Your task to perform on an android device: Do I have any events this weekend? Image 0: 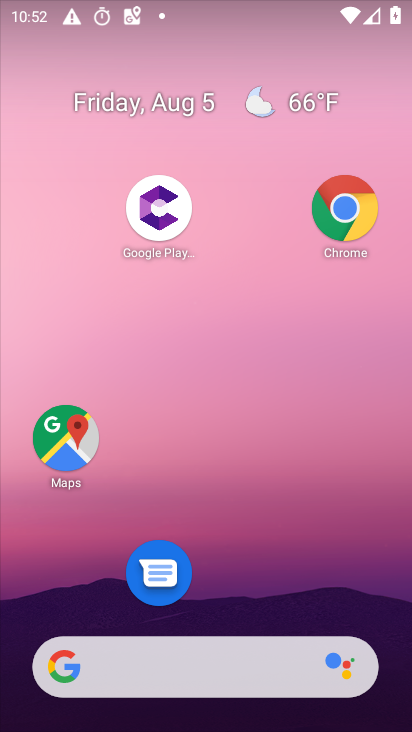
Step 0: drag from (235, 605) to (263, 8)
Your task to perform on an android device: Do I have any events this weekend? Image 1: 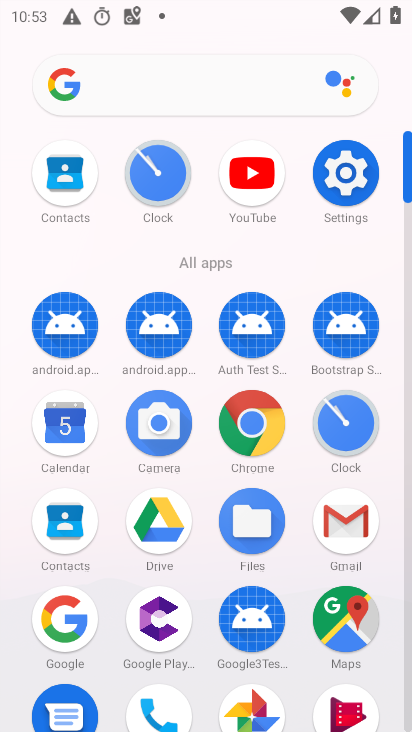
Step 1: click (62, 418)
Your task to perform on an android device: Do I have any events this weekend? Image 2: 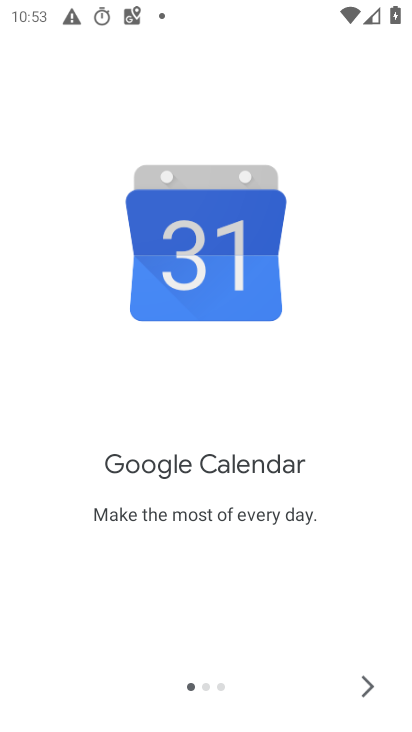
Step 2: click (368, 680)
Your task to perform on an android device: Do I have any events this weekend? Image 3: 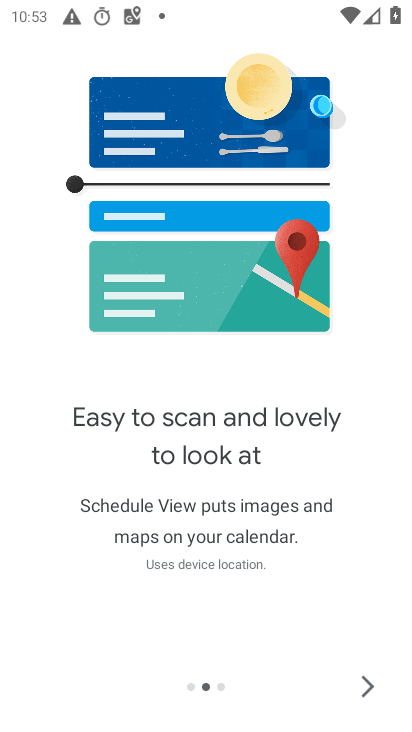
Step 3: click (352, 681)
Your task to perform on an android device: Do I have any events this weekend? Image 4: 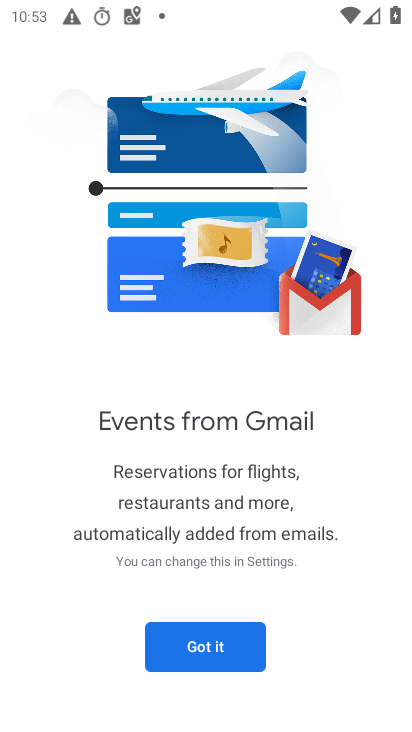
Step 4: click (209, 641)
Your task to perform on an android device: Do I have any events this weekend? Image 5: 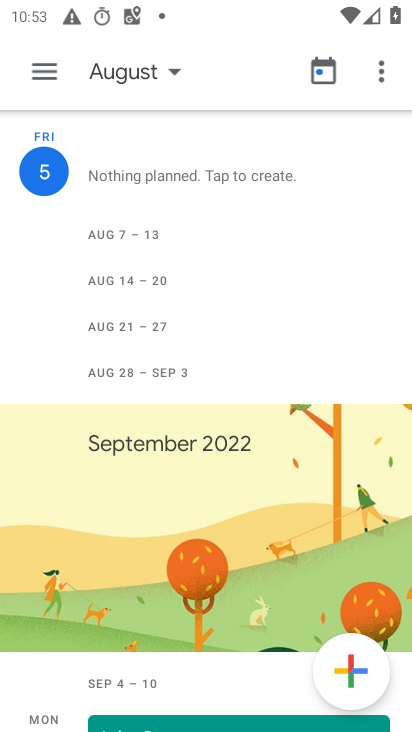
Step 5: click (40, 79)
Your task to perform on an android device: Do I have any events this weekend? Image 6: 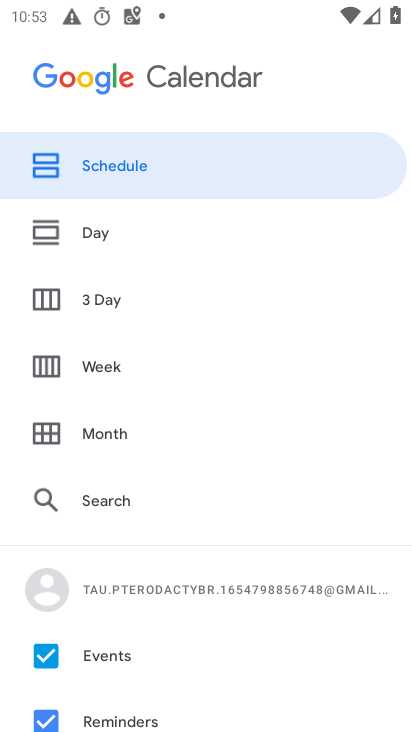
Step 6: click (99, 363)
Your task to perform on an android device: Do I have any events this weekend? Image 7: 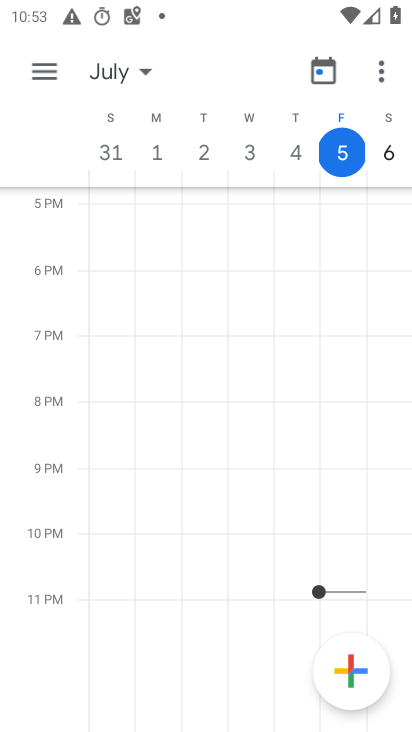
Step 7: click (34, 88)
Your task to perform on an android device: Do I have any events this weekend? Image 8: 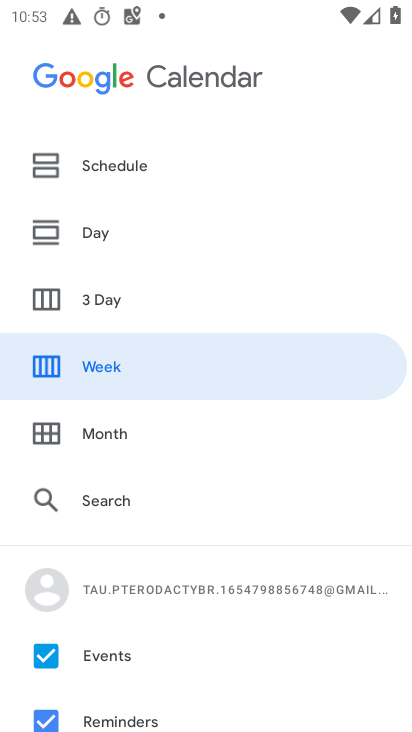
Step 8: drag from (73, 684) to (92, 296)
Your task to perform on an android device: Do I have any events this weekend? Image 9: 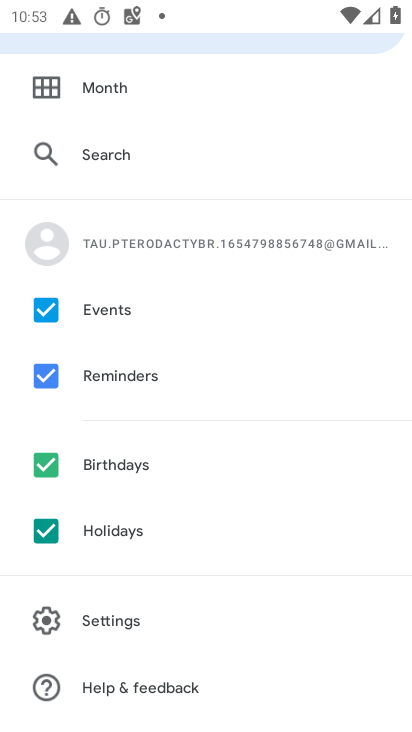
Step 9: click (38, 534)
Your task to perform on an android device: Do I have any events this weekend? Image 10: 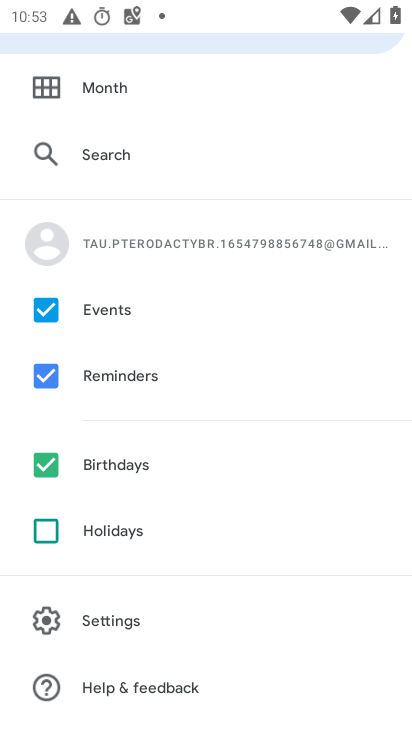
Step 10: click (44, 462)
Your task to perform on an android device: Do I have any events this weekend? Image 11: 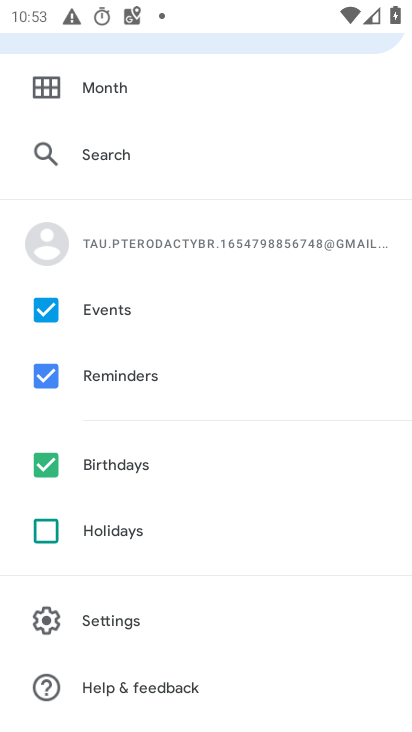
Step 11: click (48, 370)
Your task to perform on an android device: Do I have any events this weekend? Image 12: 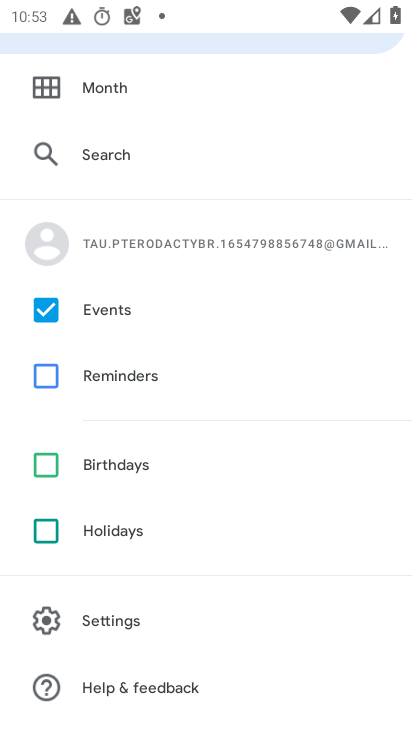
Step 12: task complete